Your task to perform on an android device: Open calendar and show me the third week of next month Image 0: 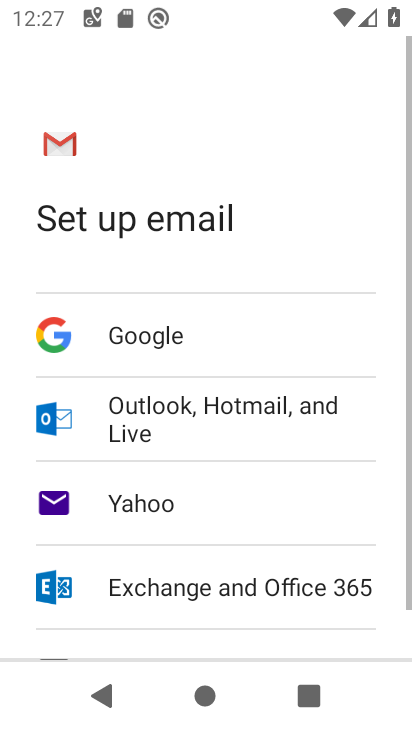
Step 0: press home button
Your task to perform on an android device: Open calendar and show me the third week of next month Image 1: 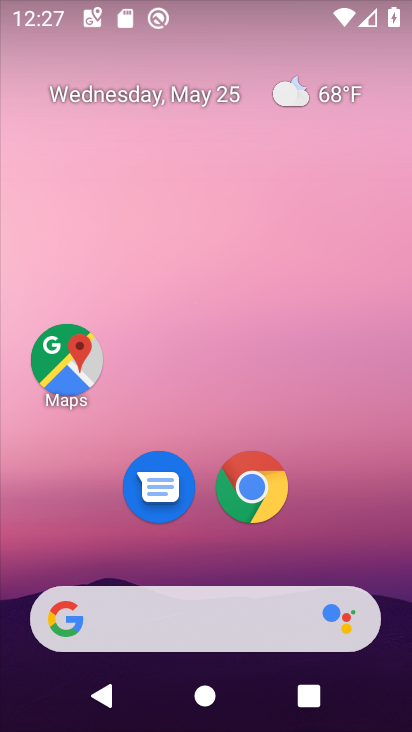
Step 1: drag from (85, 551) to (170, 74)
Your task to perform on an android device: Open calendar and show me the third week of next month Image 2: 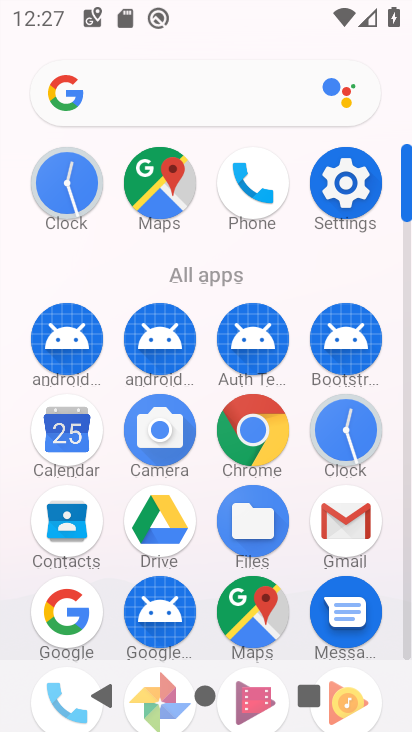
Step 2: click (63, 439)
Your task to perform on an android device: Open calendar and show me the third week of next month Image 3: 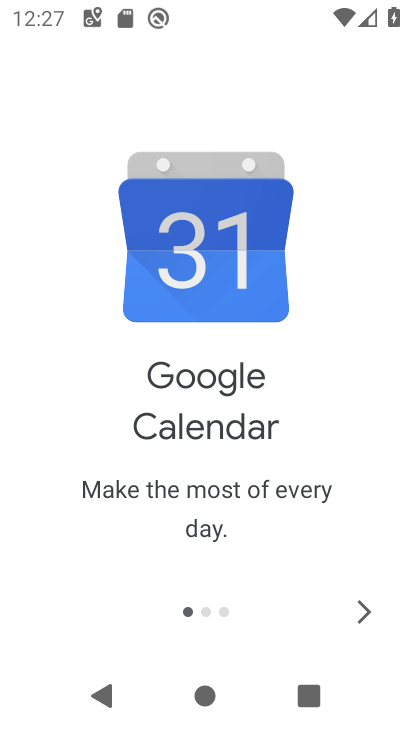
Step 3: click (359, 632)
Your task to perform on an android device: Open calendar and show me the third week of next month Image 4: 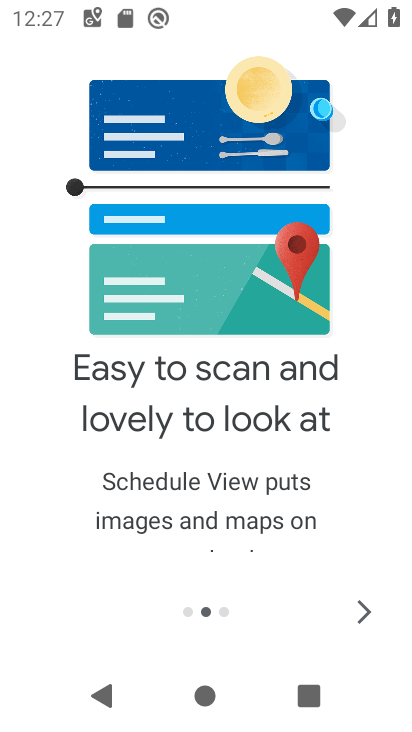
Step 4: click (359, 620)
Your task to perform on an android device: Open calendar and show me the third week of next month Image 5: 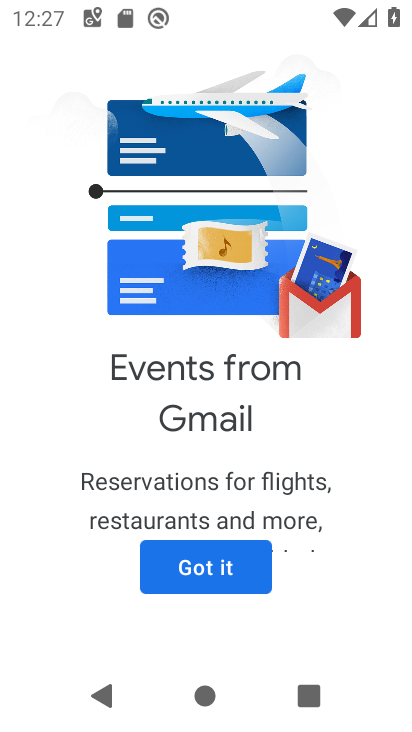
Step 5: click (359, 620)
Your task to perform on an android device: Open calendar and show me the third week of next month Image 6: 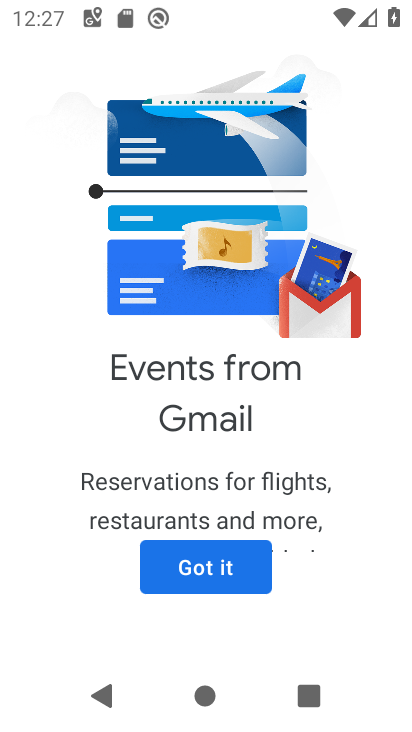
Step 6: click (226, 566)
Your task to perform on an android device: Open calendar and show me the third week of next month Image 7: 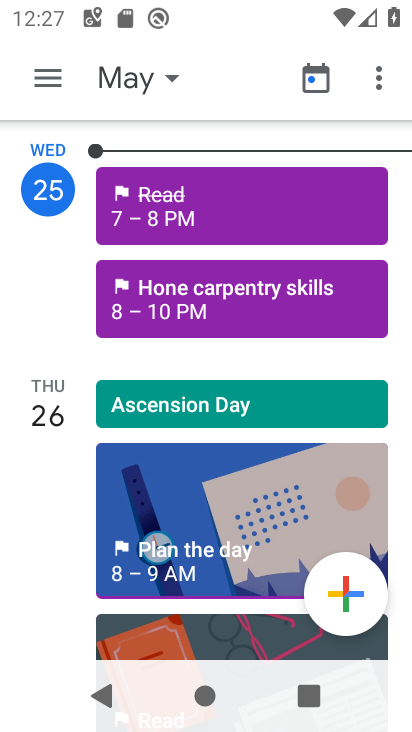
Step 7: click (136, 73)
Your task to perform on an android device: Open calendar and show me the third week of next month Image 8: 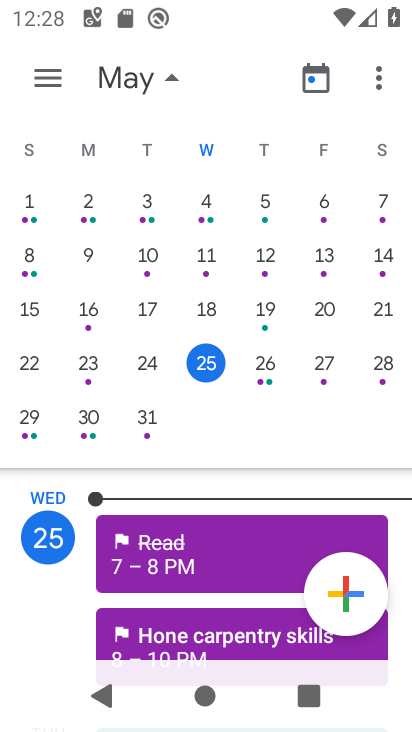
Step 8: drag from (371, 305) to (4, 304)
Your task to perform on an android device: Open calendar and show me the third week of next month Image 9: 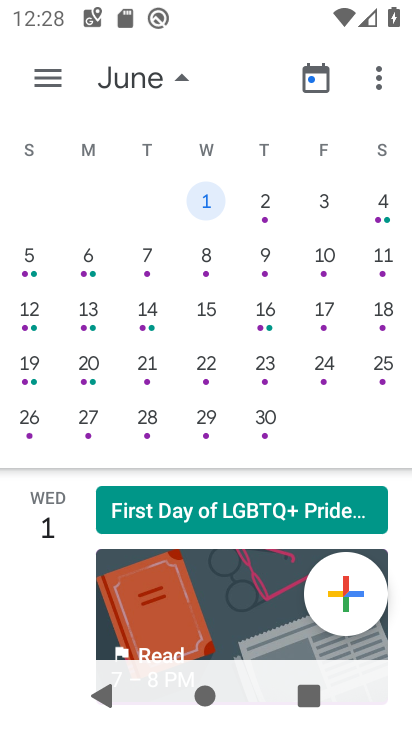
Step 9: click (83, 307)
Your task to perform on an android device: Open calendar and show me the third week of next month Image 10: 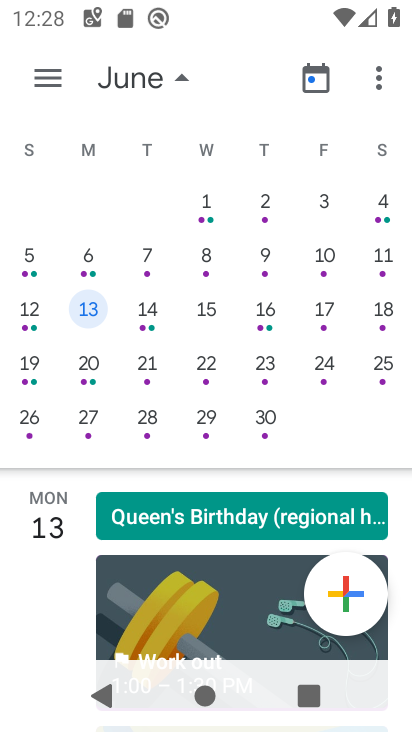
Step 10: task complete